Your task to perform on an android device: change text size in settings app Image 0: 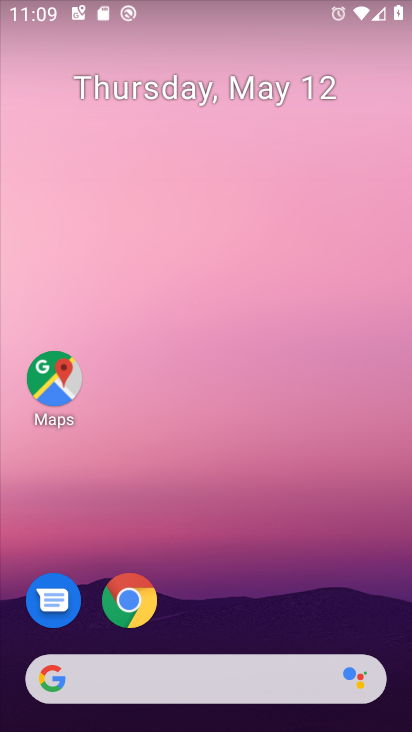
Step 0: drag from (227, 536) to (240, 275)
Your task to perform on an android device: change text size in settings app Image 1: 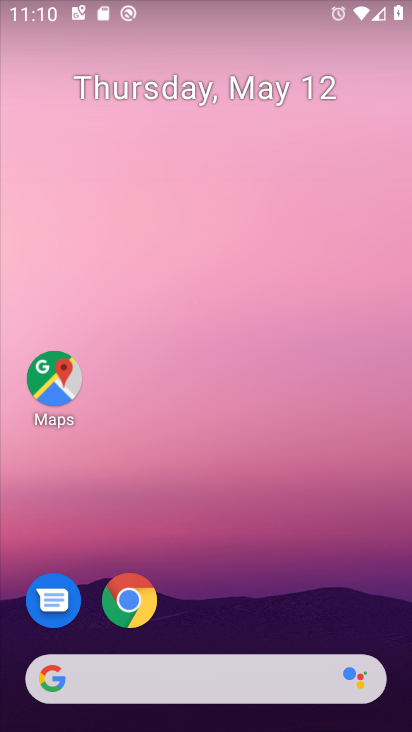
Step 1: drag from (226, 608) to (162, 165)
Your task to perform on an android device: change text size in settings app Image 2: 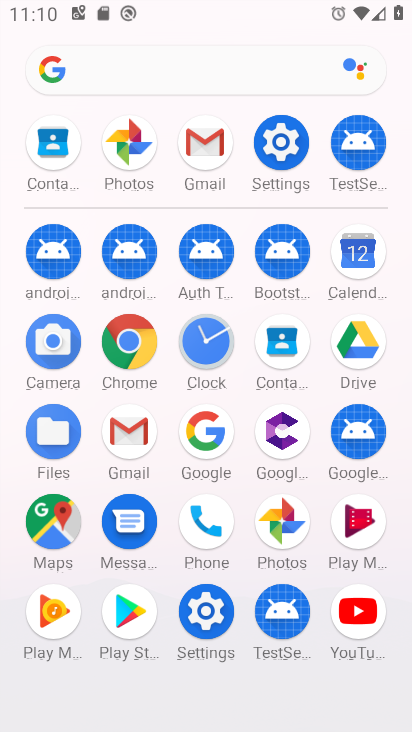
Step 2: click (283, 154)
Your task to perform on an android device: change text size in settings app Image 3: 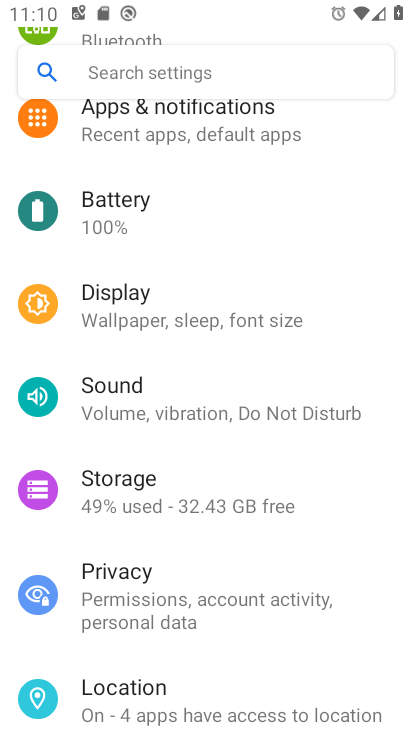
Step 3: click (226, 325)
Your task to perform on an android device: change text size in settings app Image 4: 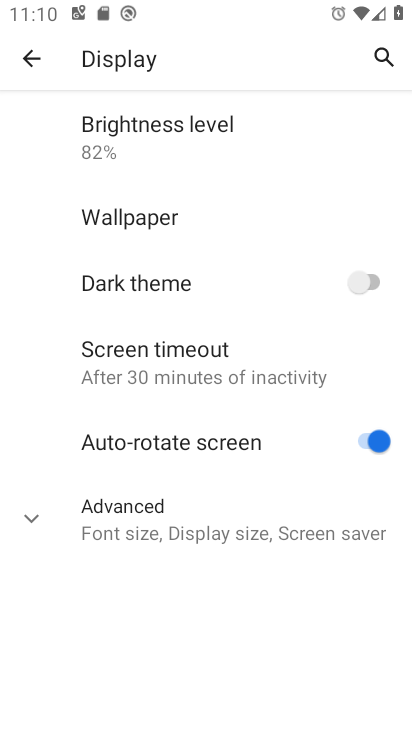
Step 4: click (148, 529)
Your task to perform on an android device: change text size in settings app Image 5: 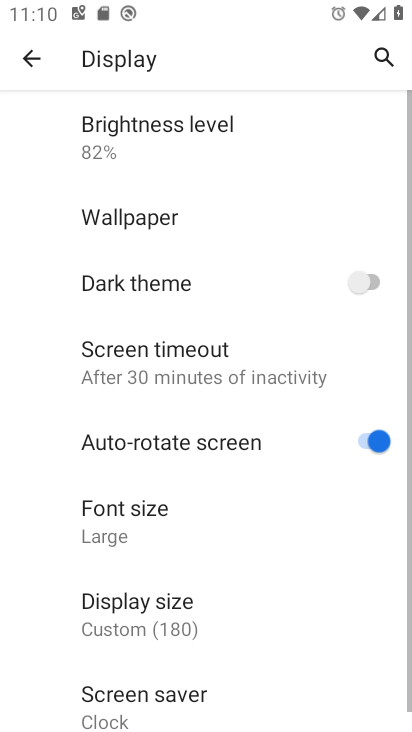
Step 5: click (137, 536)
Your task to perform on an android device: change text size in settings app Image 6: 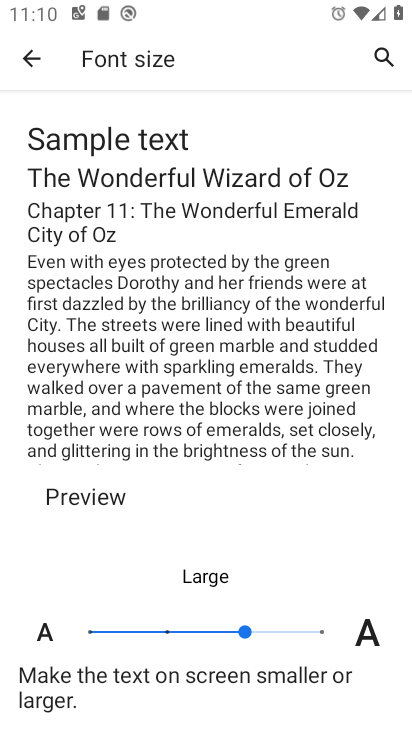
Step 6: click (92, 634)
Your task to perform on an android device: change text size in settings app Image 7: 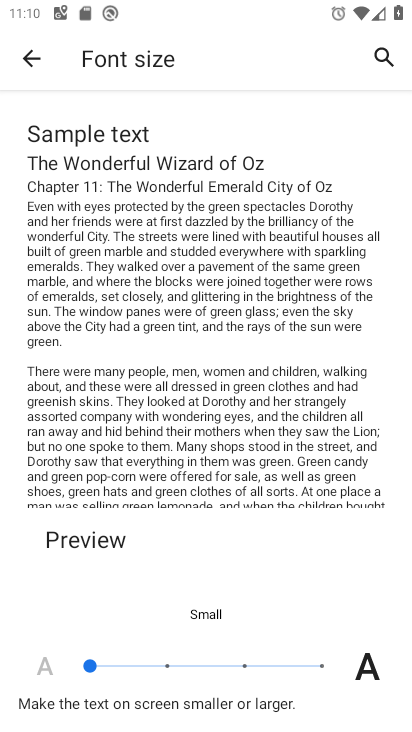
Step 7: task complete